Your task to perform on an android device: Empty the shopping cart on amazon. Search for macbook on amazon, select the first entry, and add it to the cart. Image 0: 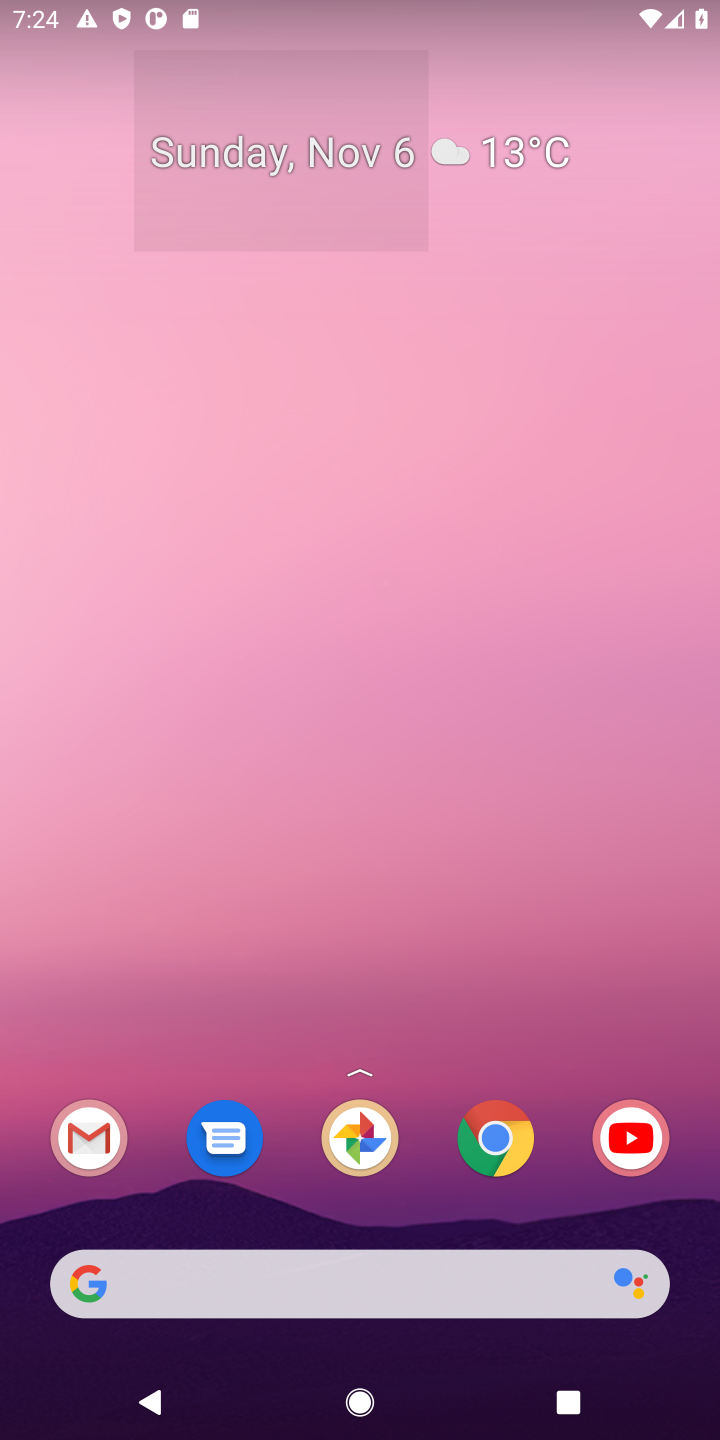
Step 0: click (517, 1168)
Your task to perform on an android device: Empty the shopping cart on amazon. Search for macbook on amazon, select the first entry, and add it to the cart. Image 1: 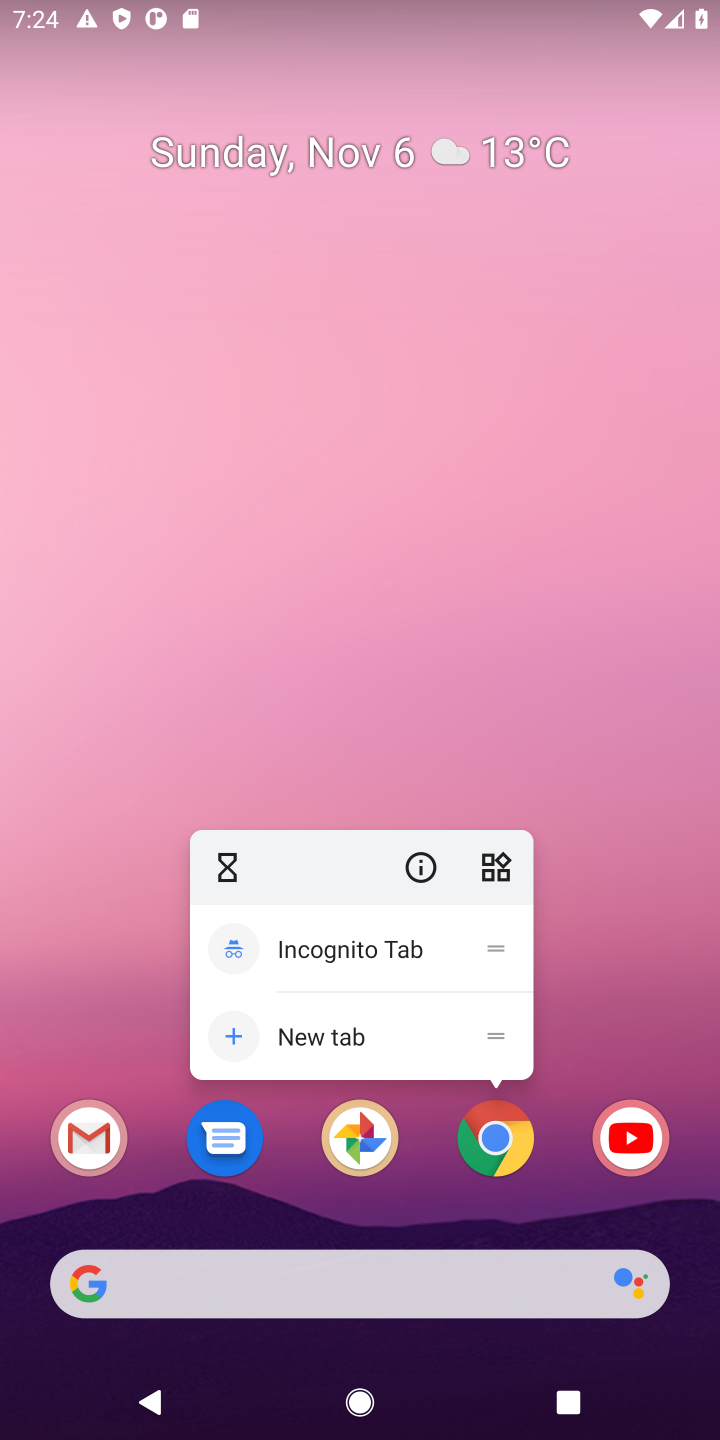
Step 1: click (485, 1138)
Your task to perform on an android device: Empty the shopping cart on amazon. Search for macbook on amazon, select the first entry, and add it to the cart. Image 2: 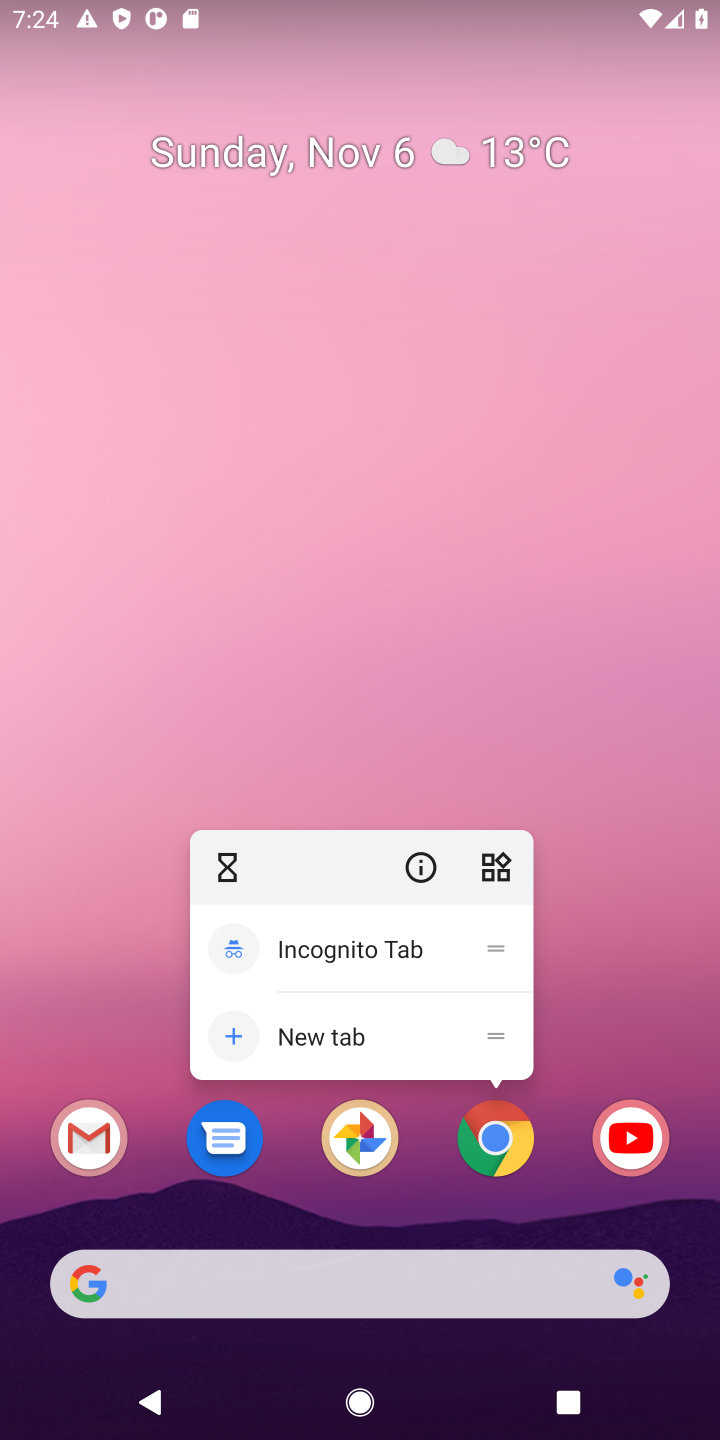
Step 2: click (485, 1142)
Your task to perform on an android device: Empty the shopping cart on amazon. Search for macbook on amazon, select the first entry, and add it to the cart. Image 3: 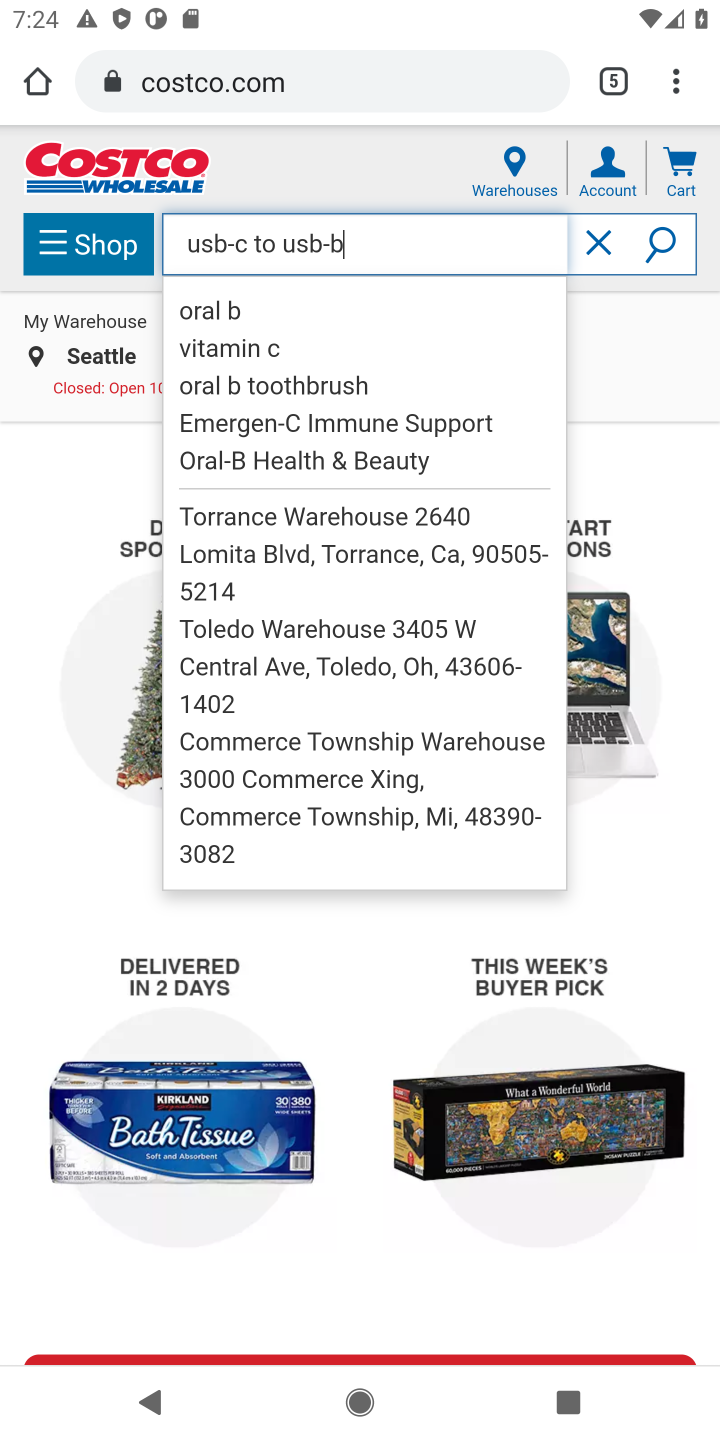
Step 3: click (601, 84)
Your task to perform on an android device: Empty the shopping cart on amazon. Search for macbook on amazon, select the first entry, and add it to the cart. Image 4: 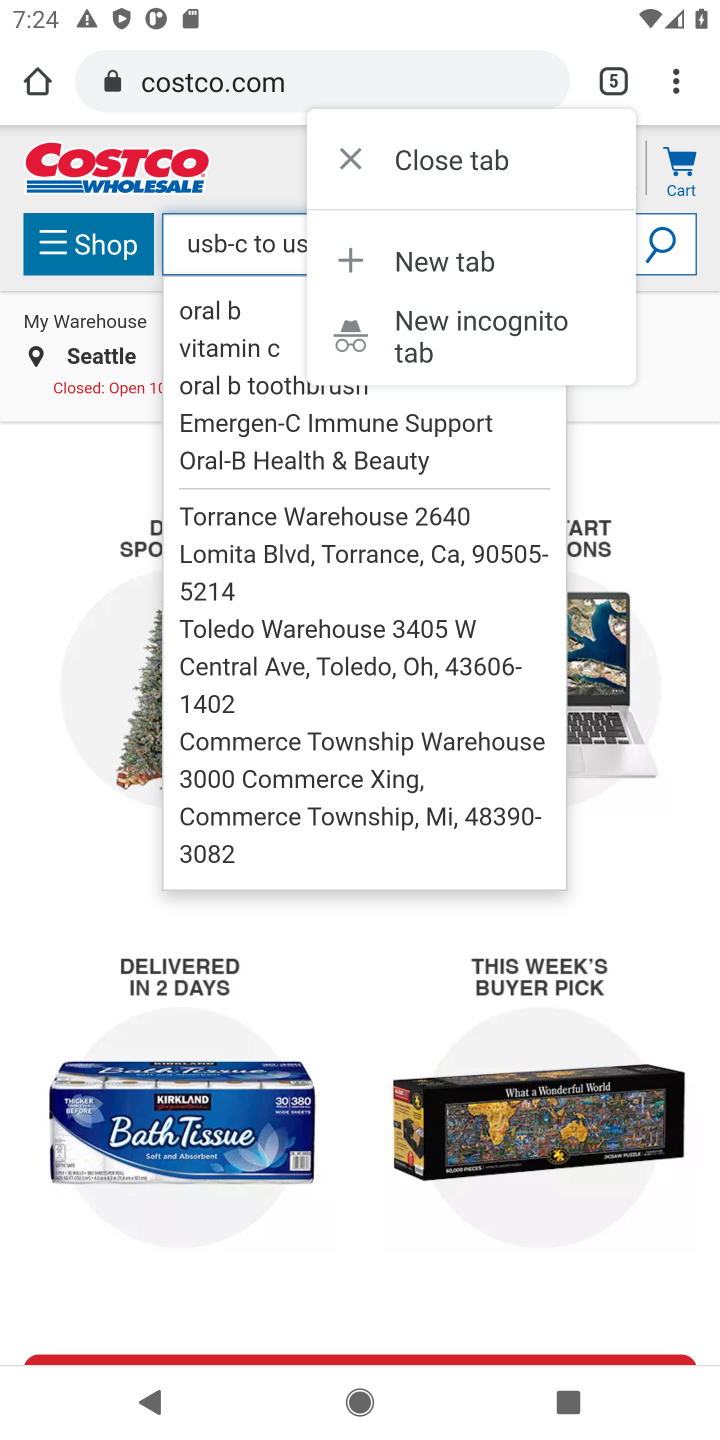
Step 4: click (436, 265)
Your task to perform on an android device: Empty the shopping cart on amazon. Search for macbook on amazon, select the first entry, and add it to the cart. Image 5: 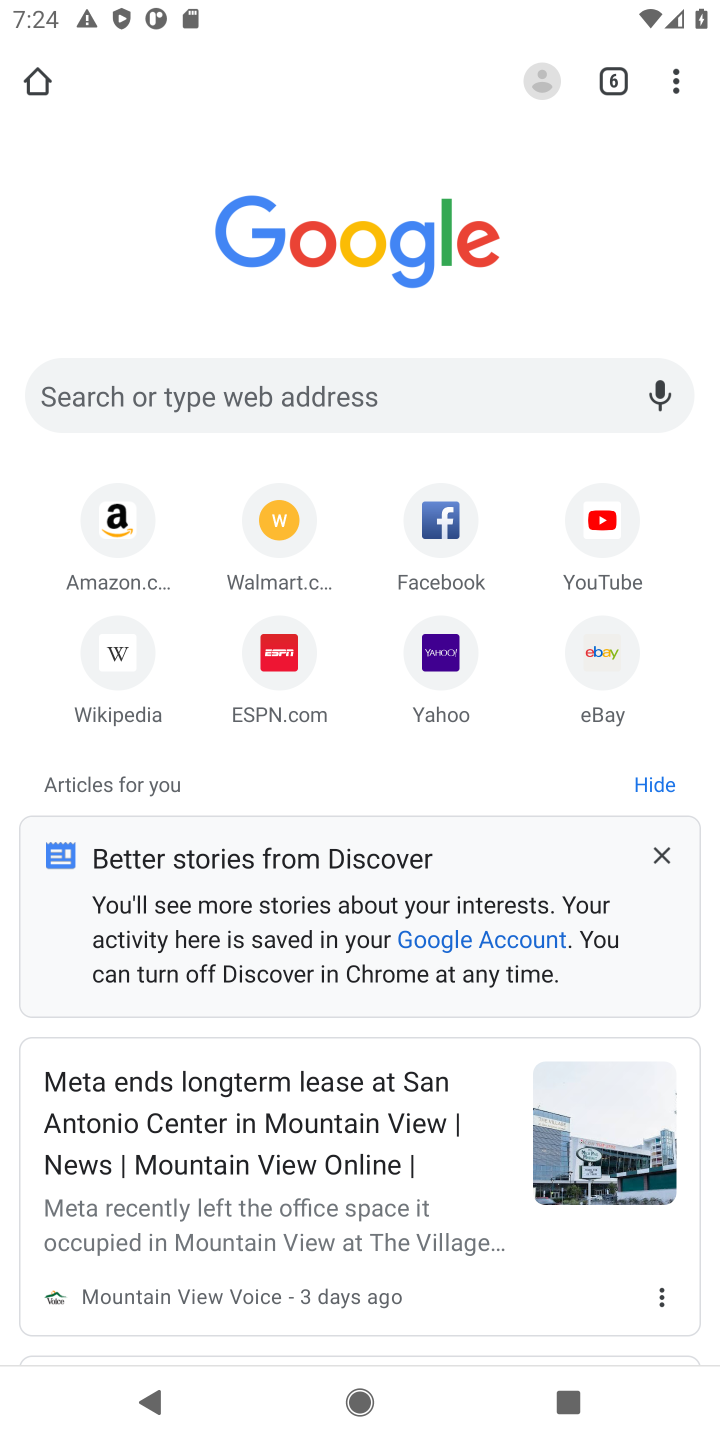
Step 5: click (154, 529)
Your task to perform on an android device: Empty the shopping cart on amazon. Search for macbook on amazon, select the first entry, and add it to the cart. Image 6: 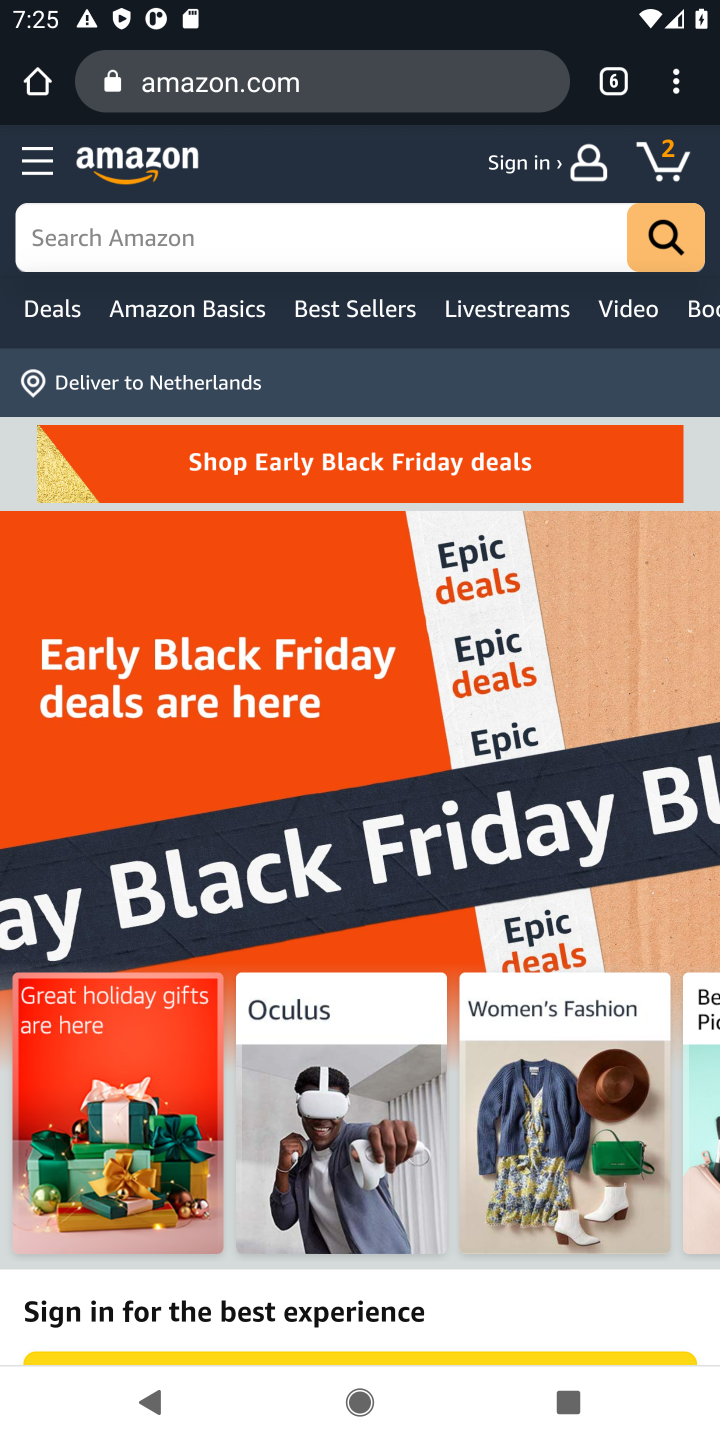
Step 6: click (149, 234)
Your task to perform on an android device: Empty the shopping cart on amazon. Search for macbook on amazon, select the first entry, and add it to the cart. Image 7: 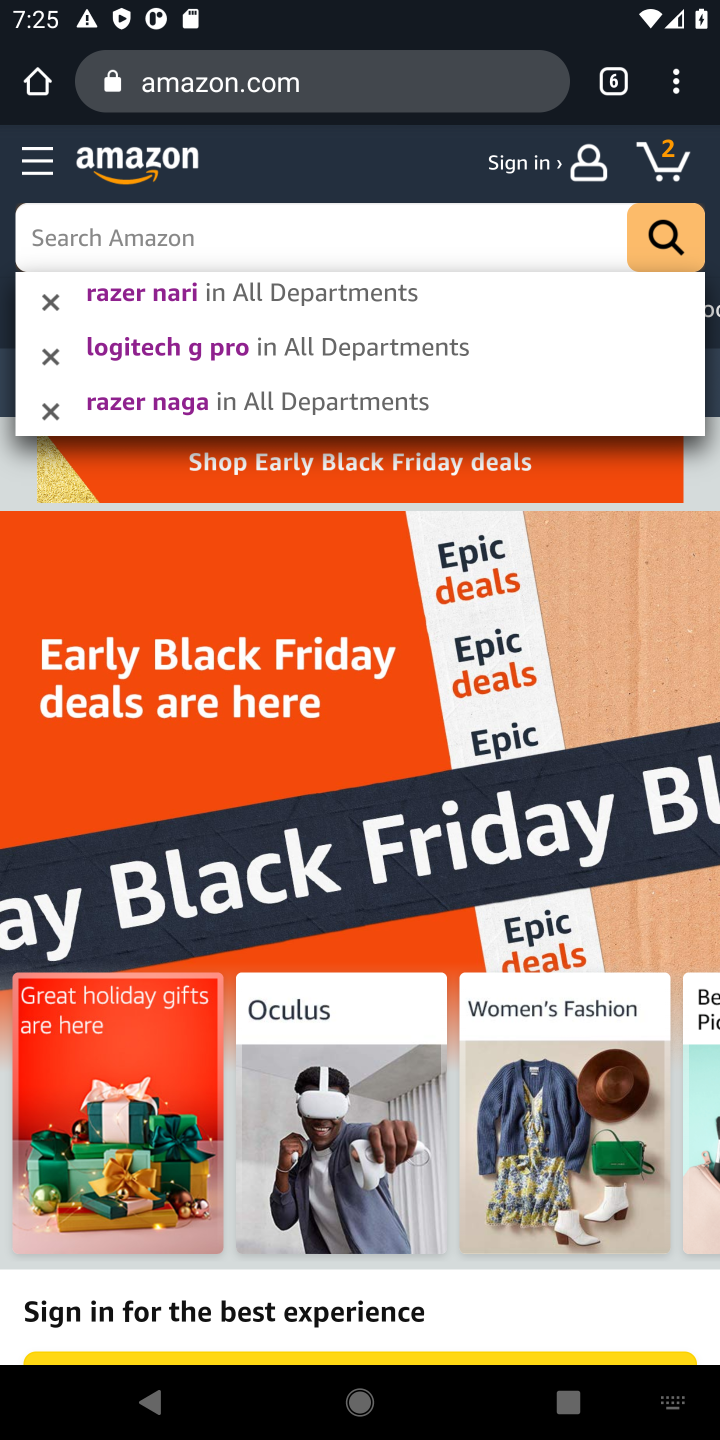
Step 7: type "macbook"
Your task to perform on an android device: Empty the shopping cart on amazon. Search for macbook on amazon, select the first entry, and add it to the cart. Image 8: 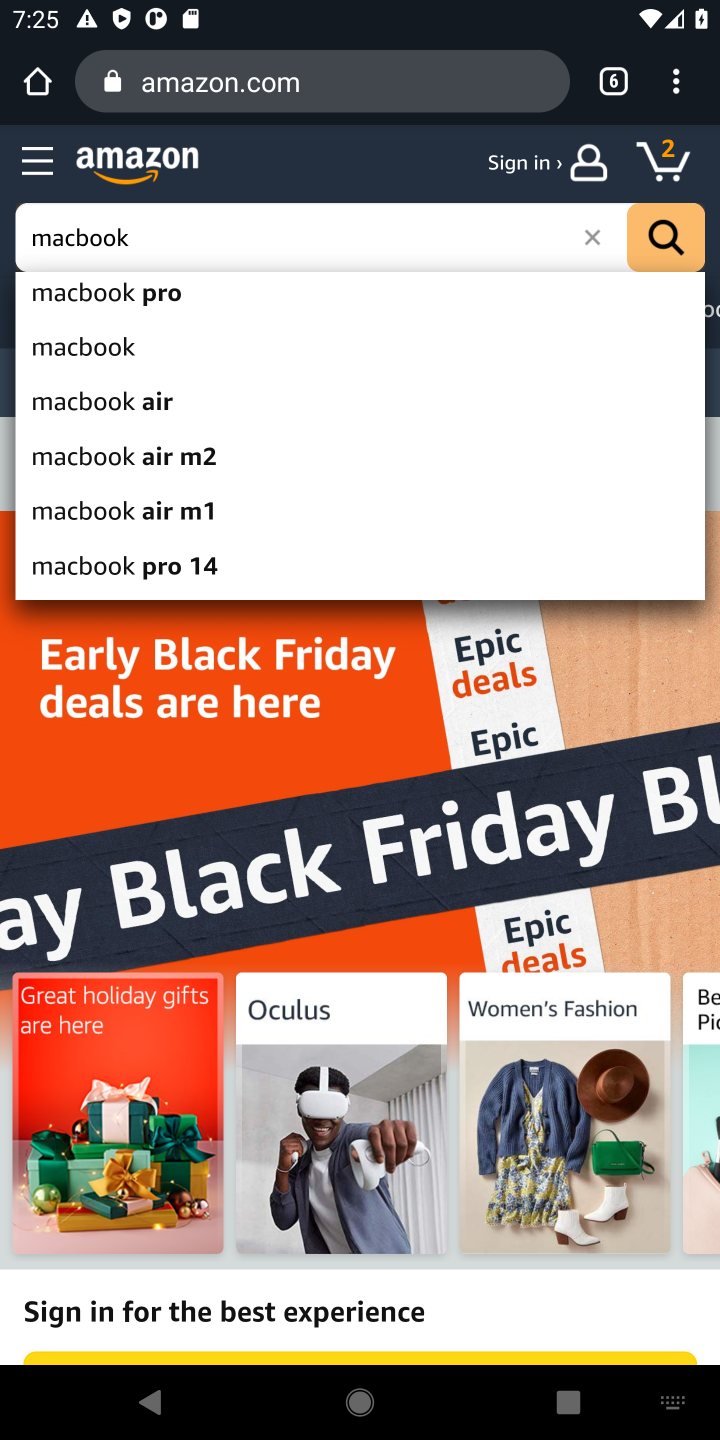
Step 8: click (155, 352)
Your task to perform on an android device: Empty the shopping cart on amazon. Search for macbook on amazon, select the first entry, and add it to the cart. Image 9: 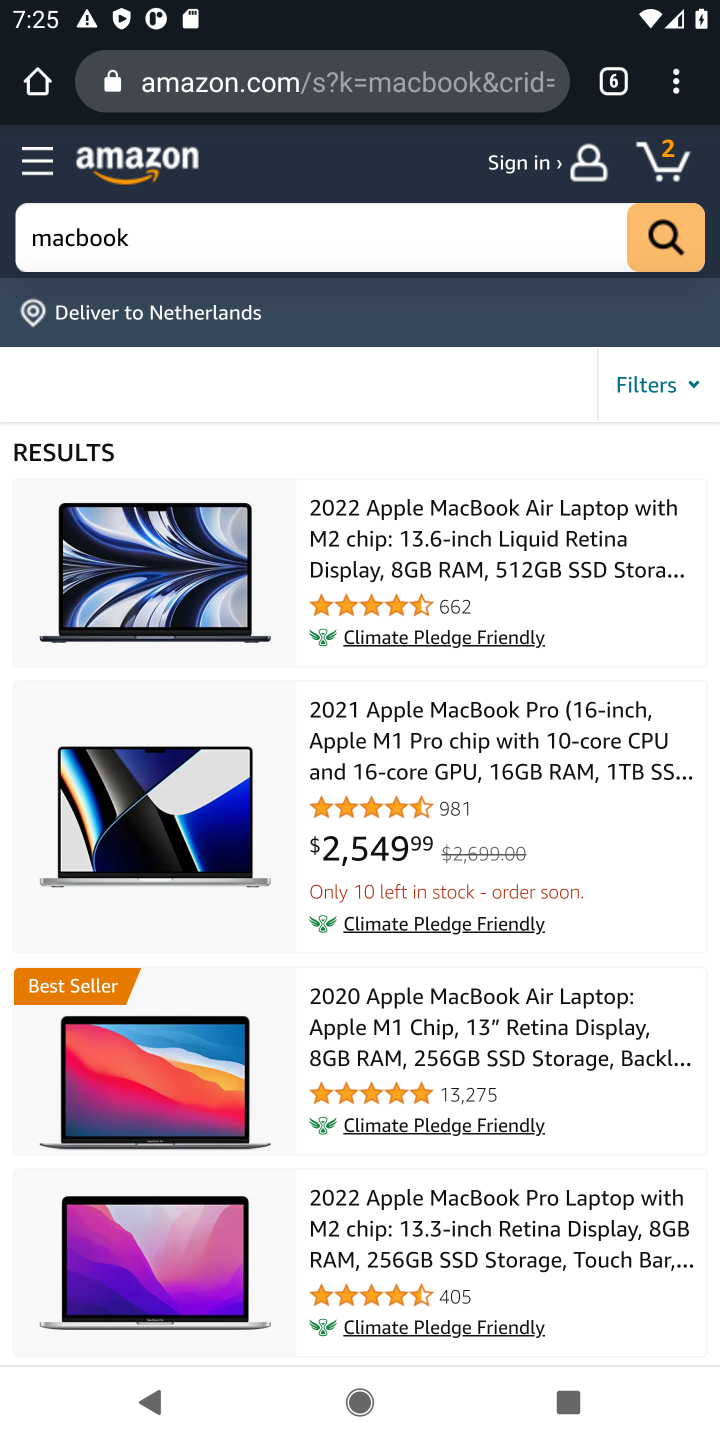
Step 9: click (125, 551)
Your task to perform on an android device: Empty the shopping cart on amazon. Search for macbook on amazon, select the first entry, and add it to the cart. Image 10: 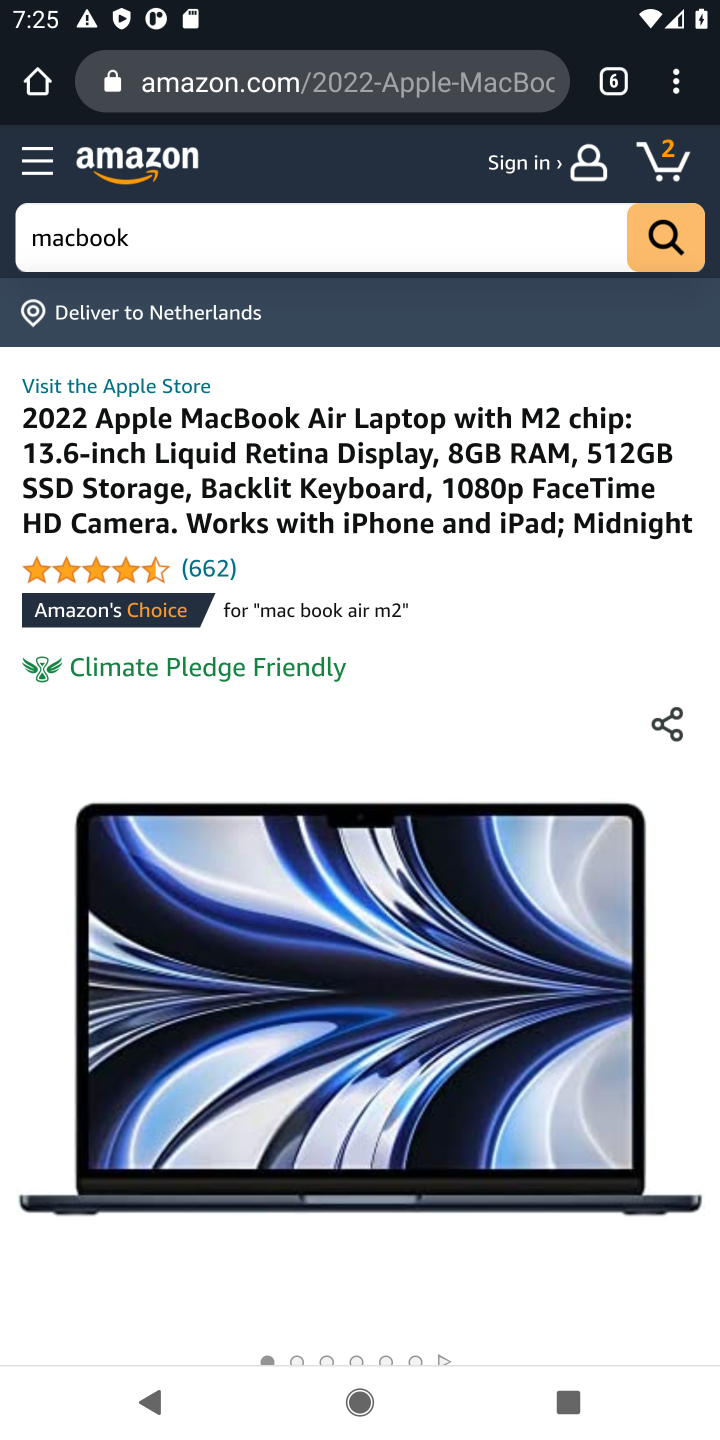
Step 10: task complete